Your task to perform on an android device: toggle show notifications on the lock screen Image 0: 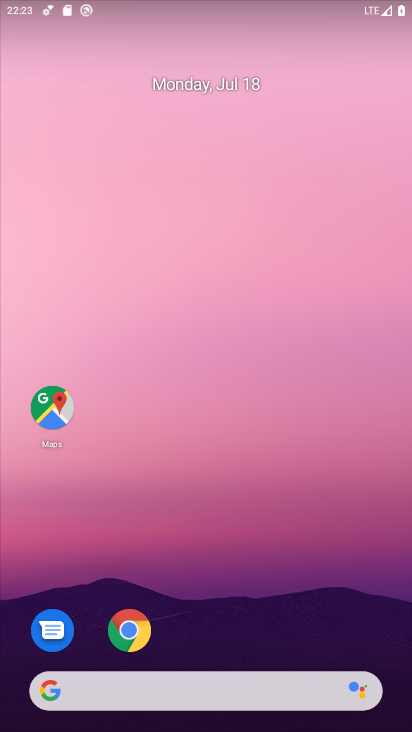
Step 0: drag from (248, 622) to (250, 175)
Your task to perform on an android device: toggle show notifications on the lock screen Image 1: 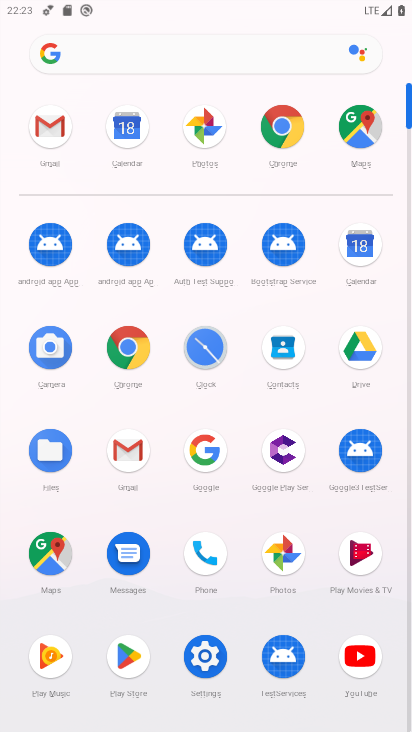
Step 1: click (205, 655)
Your task to perform on an android device: toggle show notifications on the lock screen Image 2: 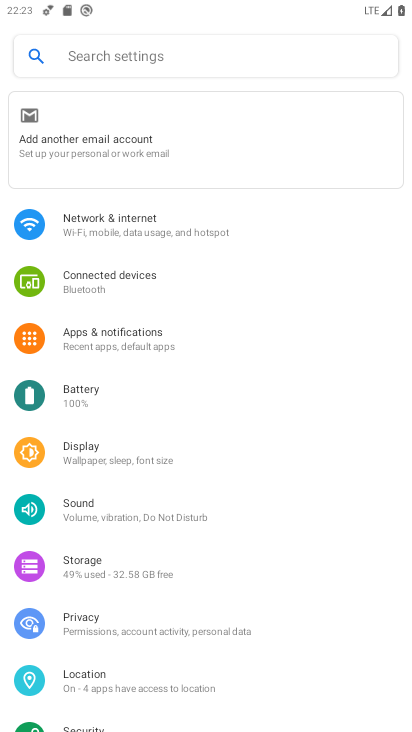
Step 2: click (117, 323)
Your task to perform on an android device: toggle show notifications on the lock screen Image 3: 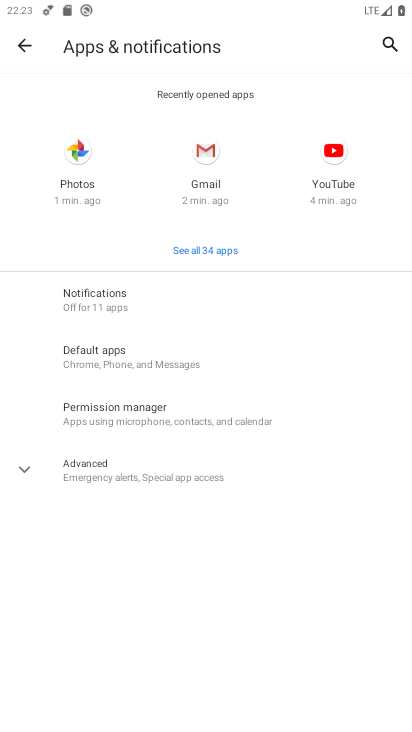
Step 3: click (160, 293)
Your task to perform on an android device: toggle show notifications on the lock screen Image 4: 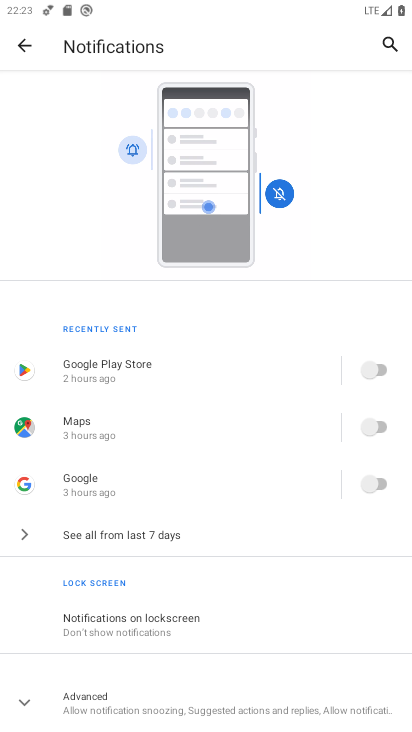
Step 4: click (142, 626)
Your task to perform on an android device: toggle show notifications on the lock screen Image 5: 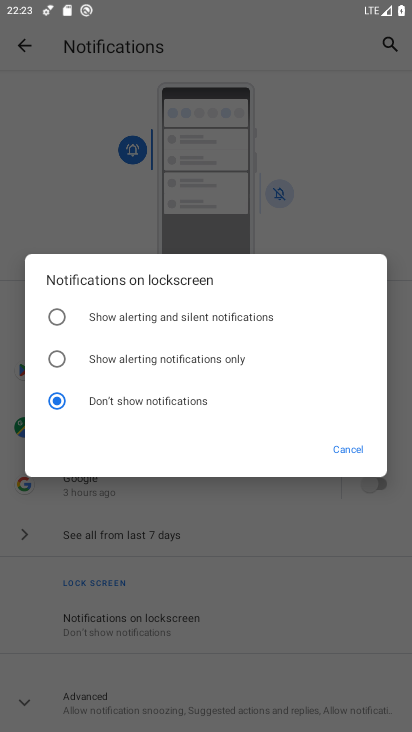
Step 5: click (118, 313)
Your task to perform on an android device: toggle show notifications on the lock screen Image 6: 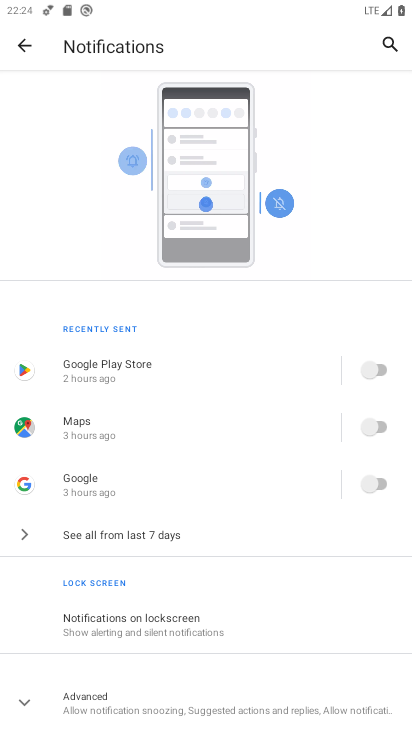
Step 6: task complete